Your task to perform on an android device: all mails in gmail Image 0: 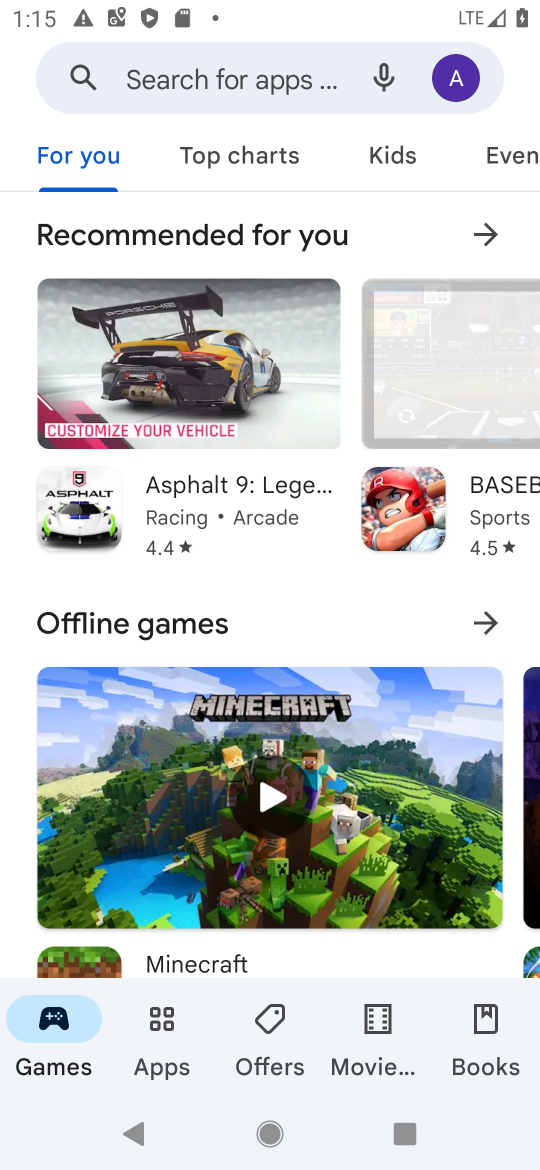
Step 0: press home button
Your task to perform on an android device: all mails in gmail Image 1: 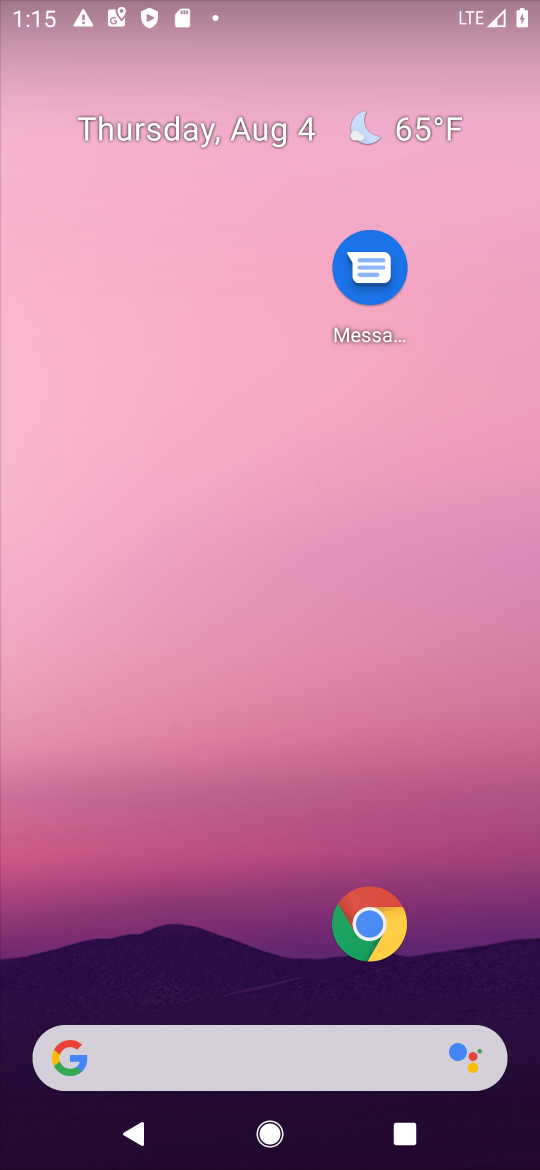
Step 1: task complete